Your task to perform on an android device: Open Reddit.com Image 0: 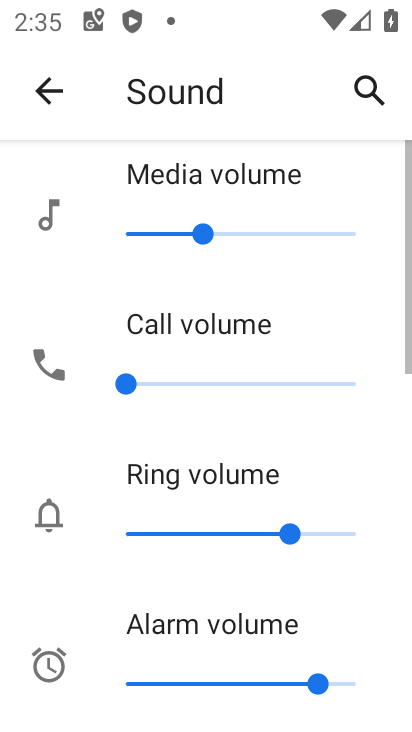
Step 0: click (179, 660)
Your task to perform on an android device: Open Reddit.com Image 1: 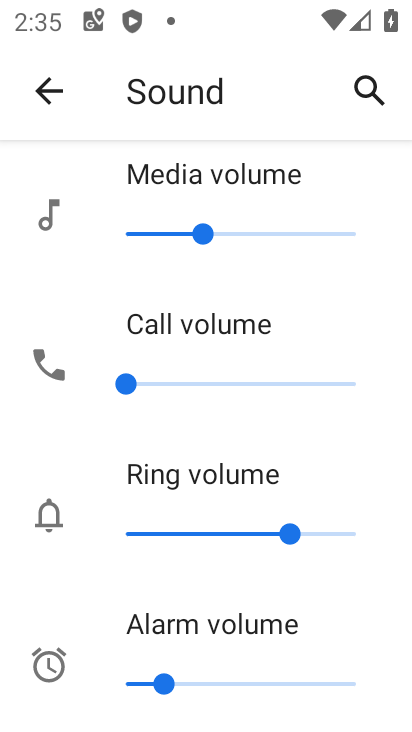
Step 1: press home button
Your task to perform on an android device: Open Reddit.com Image 2: 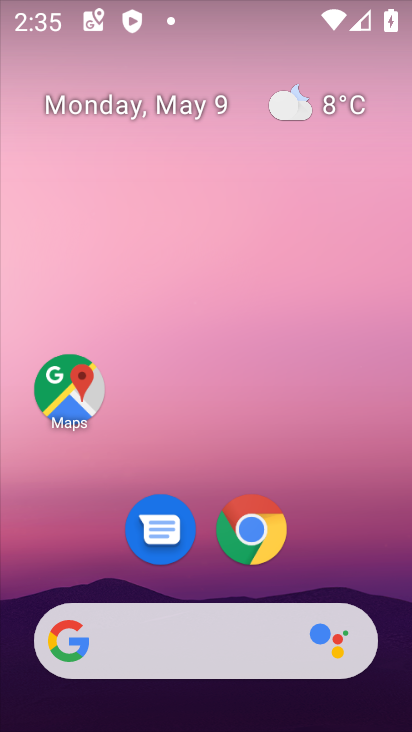
Step 2: click (197, 649)
Your task to perform on an android device: Open Reddit.com Image 3: 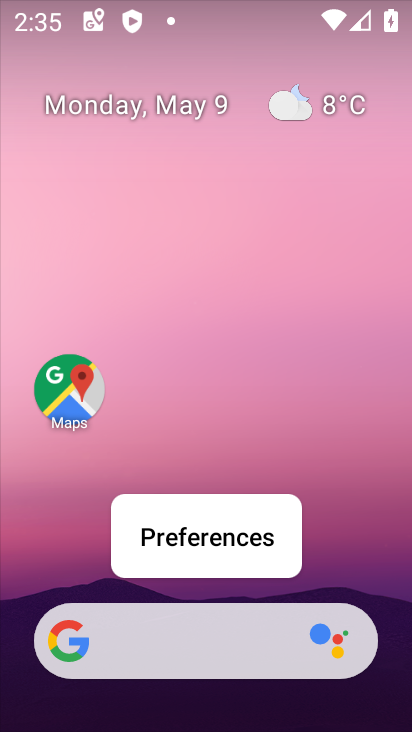
Step 3: click (228, 674)
Your task to perform on an android device: Open Reddit.com Image 4: 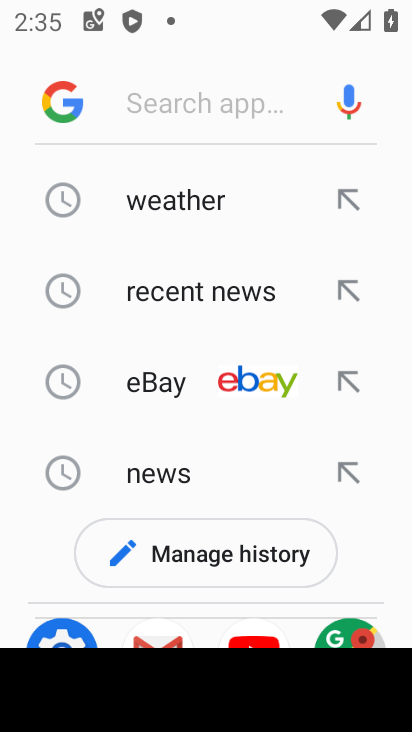
Step 4: type "reddit.com"
Your task to perform on an android device: Open Reddit.com Image 5: 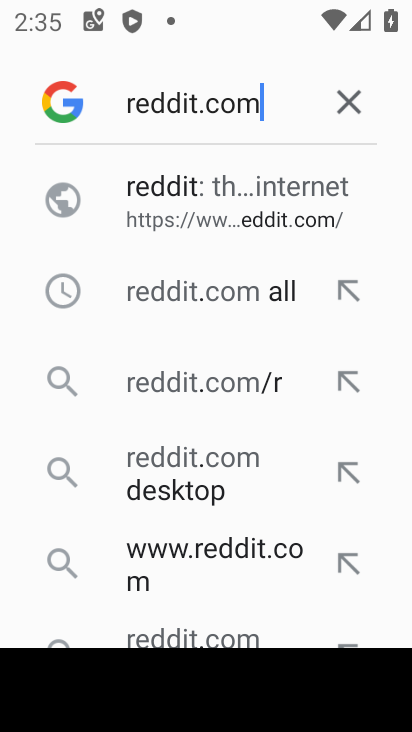
Step 5: click (255, 194)
Your task to perform on an android device: Open Reddit.com Image 6: 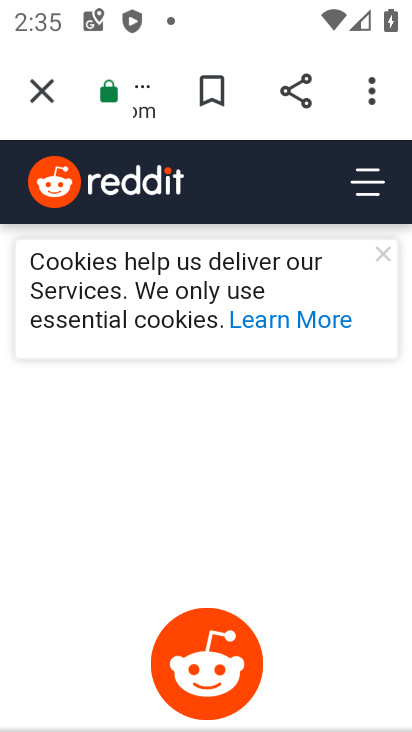
Step 6: task complete